Your task to perform on an android device: choose inbox layout in the gmail app Image 0: 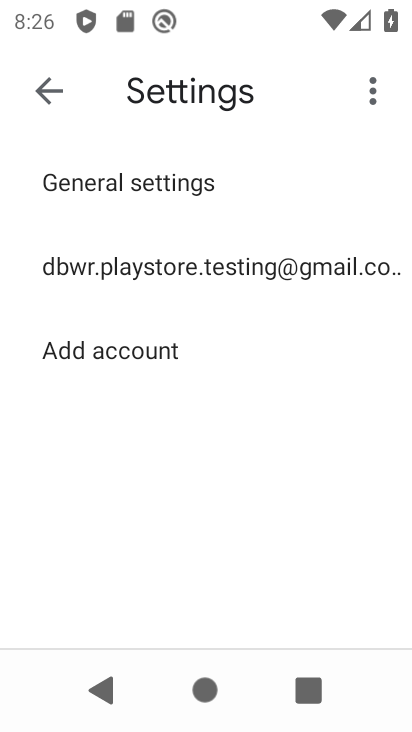
Step 0: press home button
Your task to perform on an android device: choose inbox layout in the gmail app Image 1: 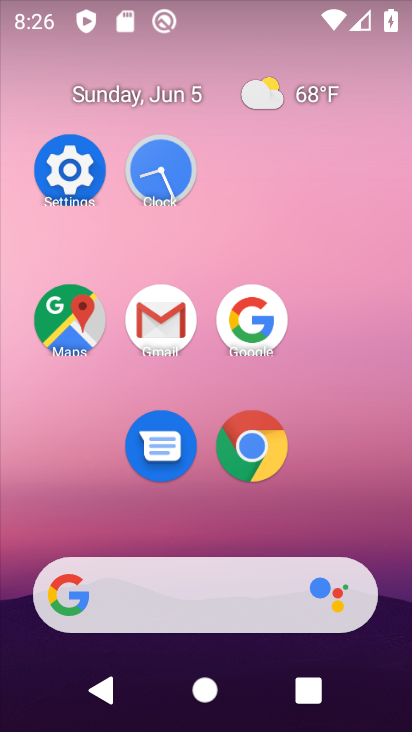
Step 1: click (158, 327)
Your task to perform on an android device: choose inbox layout in the gmail app Image 2: 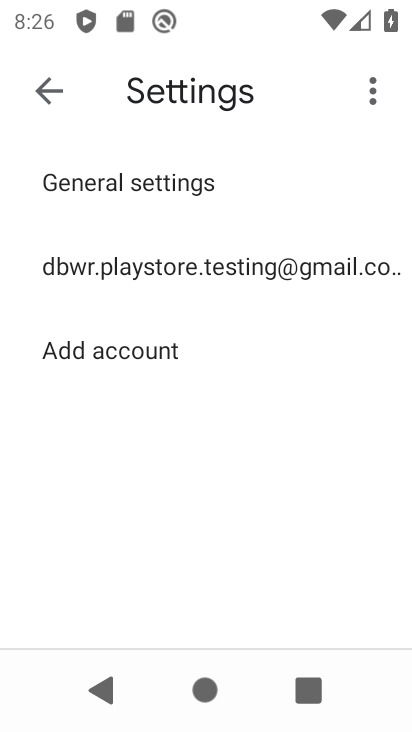
Step 2: click (49, 100)
Your task to perform on an android device: choose inbox layout in the gmail app Image 3: 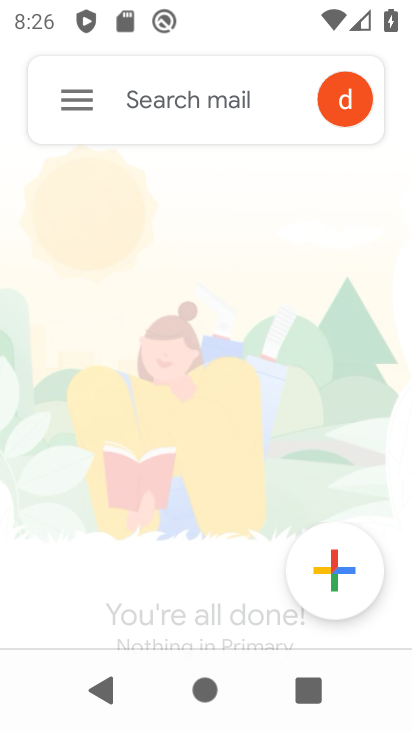
Step 3: click (100, 103)
Your task to perform on an android device: choose inbox layout in the gmail app Image 4: 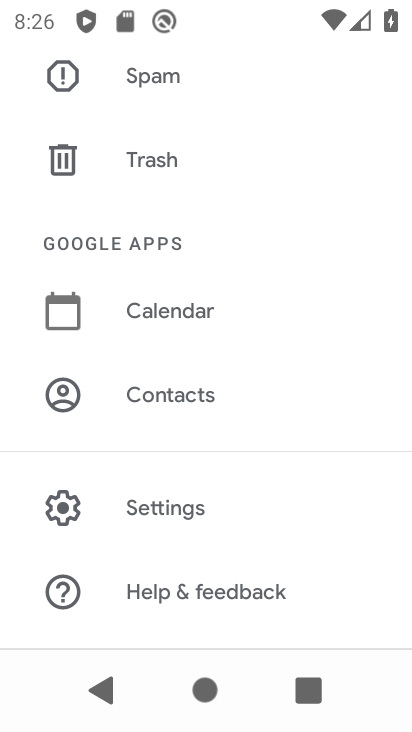
Step 4: click (178, 513)
Your task to perform on an android device: choose inbox layout in the gmail app Image 5: 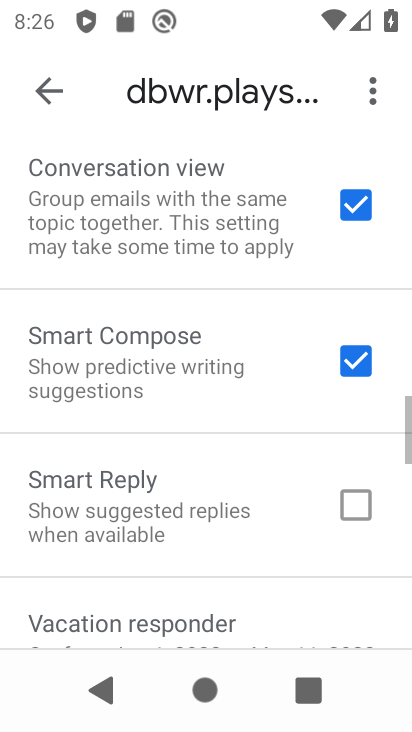
Step 5: drag from (194, 523) to (228, 579)
Your task to perform on an android device: choose inbox layout in the gmail app Image 6: 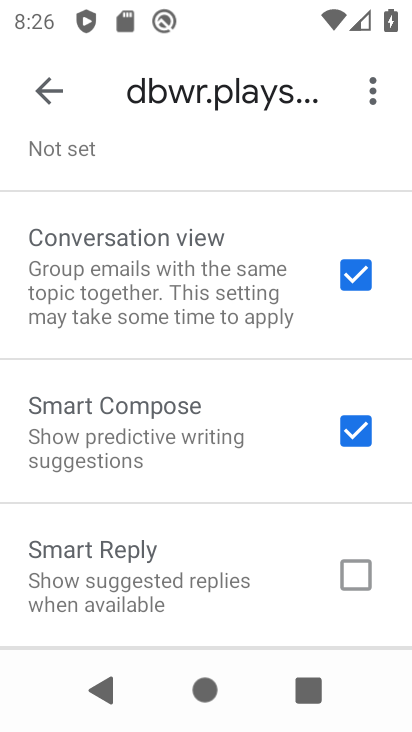
Step 6: drag from (248, 203) to (187, 550)
Your task to perform on an android device: choose inbox layout in the gmail app Image 7: 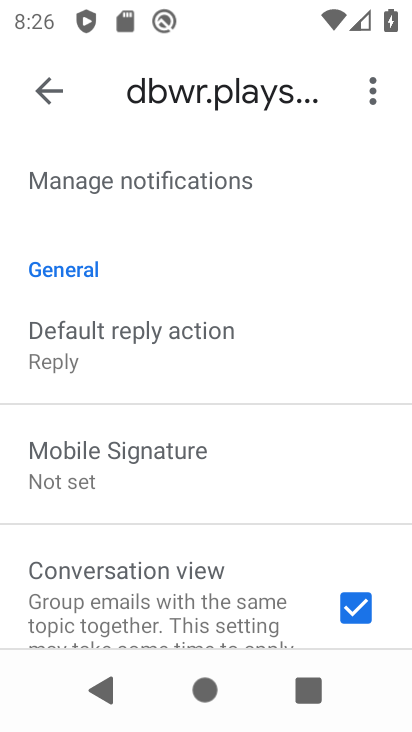
Step 7: drag from (297, 225) to (230, 615)
Your task to perform on an android device: choose inbox layout in the gmail app Image 8: 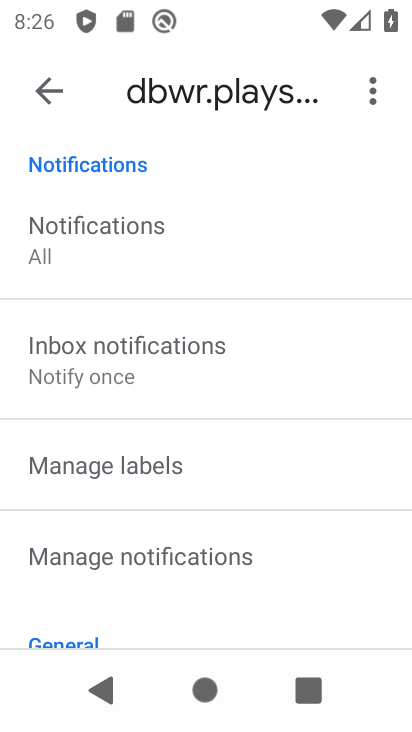
Step 8: drag from (241, 251) to (188, 602)
Your task to perform on an android device: choose inbox layout in the gmail app Image 9: 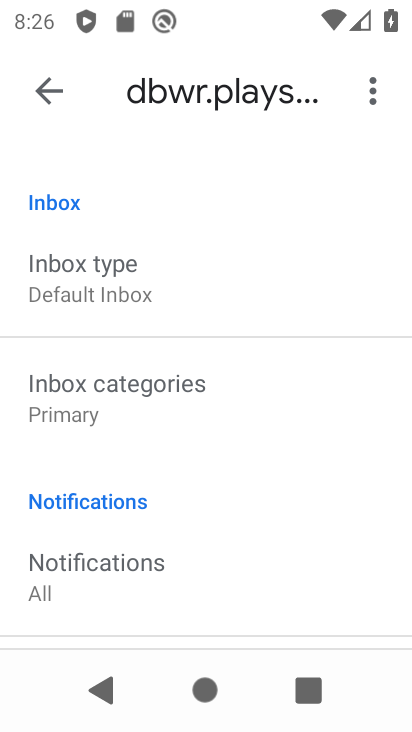
Step 9: click (232, 306)
Your task to perform on an android device: choose inbox layout in the gmail app Image 10: 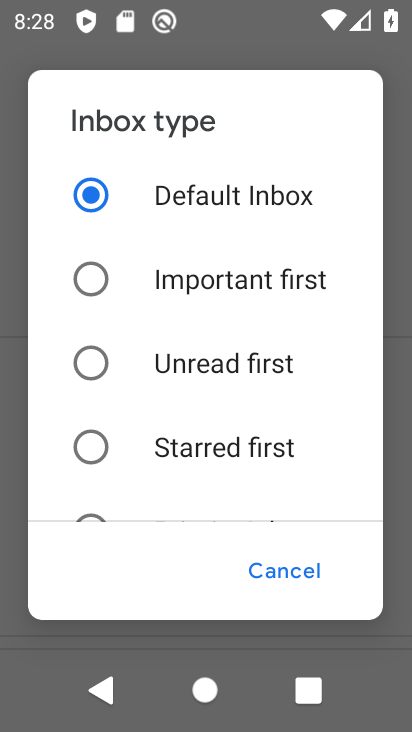
Step 10: task complete